Your task to perform on an android device: What is the news today? Image 0: 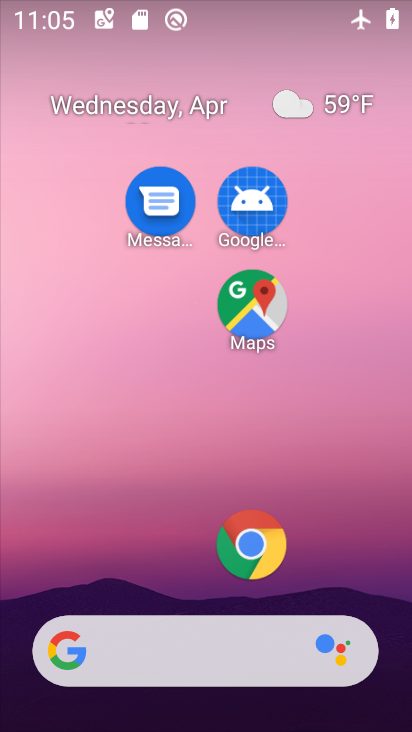
Step 0: click (178, 77)
Your task to perform on an android device: What is the news today? Image 1: 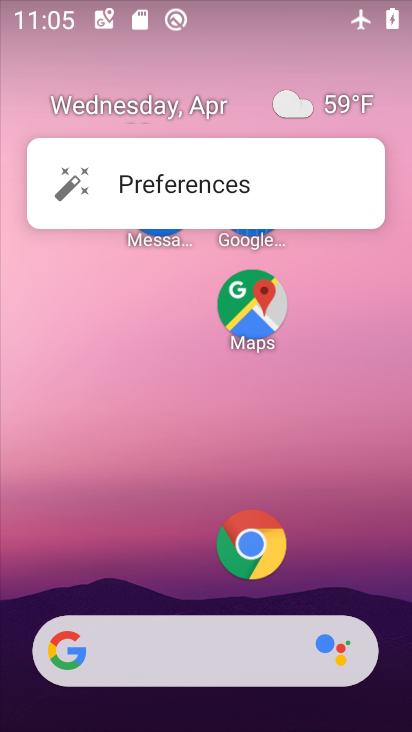
Step 1: drag from (191, 583) to (188, 179)
Your task to perform on an android device: What is the news today? Image 2: 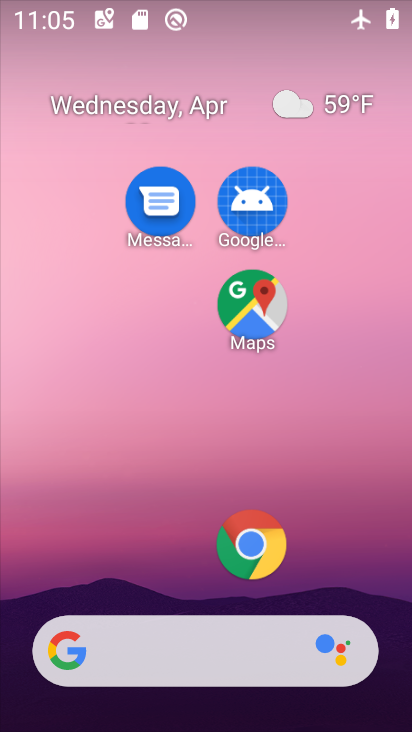
Step 2: drag from (183, 562) to (183, 96)
Your task to perform on an android device: What is the news today? Image 3: 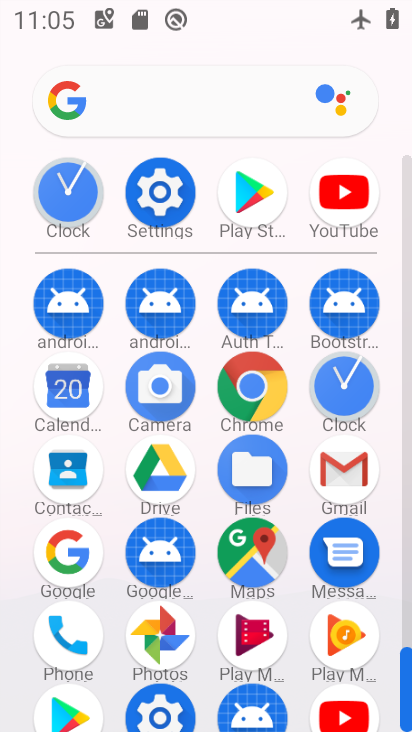
Step 3: drag from (205, 598) to (207, 303)
Your task to perform on an android device: What is the news today? Image 4: 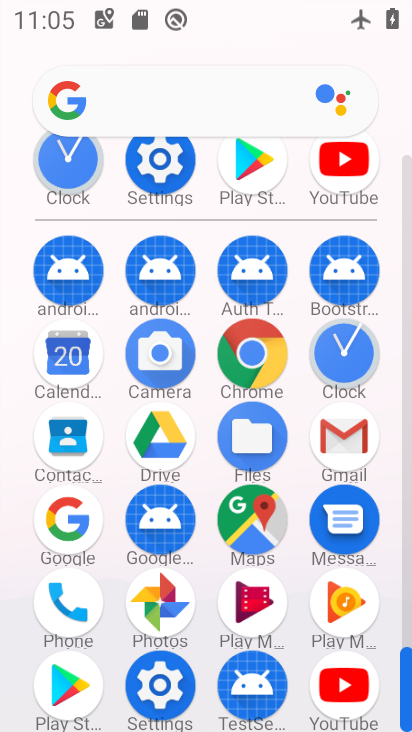
Step 4: click (88, 525)
Your task to perform on an android device: What is the news today? Image 5: 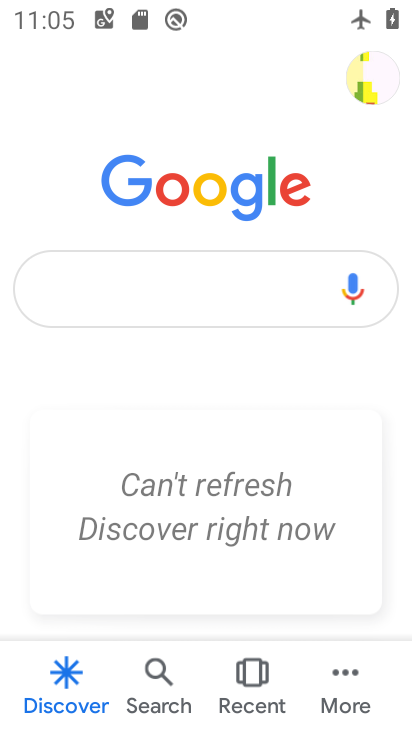
Step 5: click (156, 283)
Your task to perform on an android device: What is the news today? Image 6: 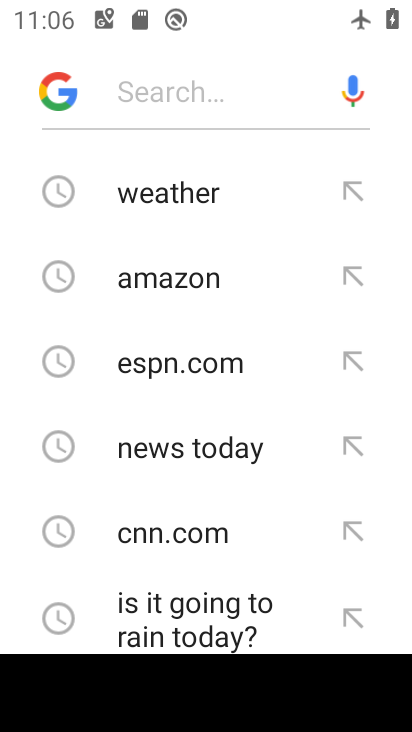
Step 6: type "news today"
Your task to perform on an android device: What is the news today? Image 7: 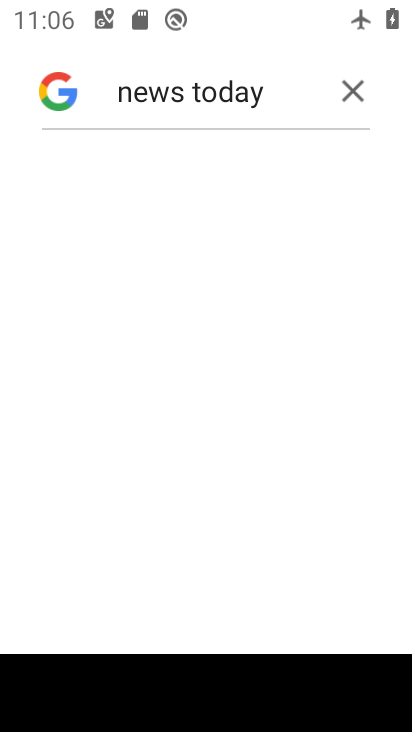
Step 7: task complete